Your task to perform on an android device: Show the shopping cart on walmart. Add "jbl flip 4" to the cart on walmart, then select checkout. Image 0: 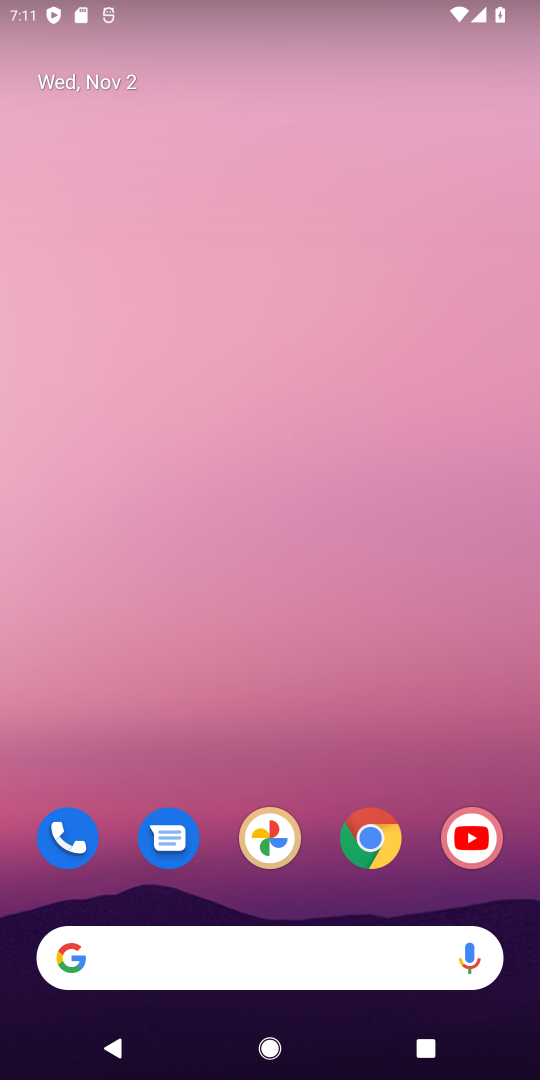
Step 0: click (371, 860)
Your task to perform on an android device: Show the shopping cart on walmart. Add "jbl flip 4" to the cart on walmart, then select checkout. Image 1: 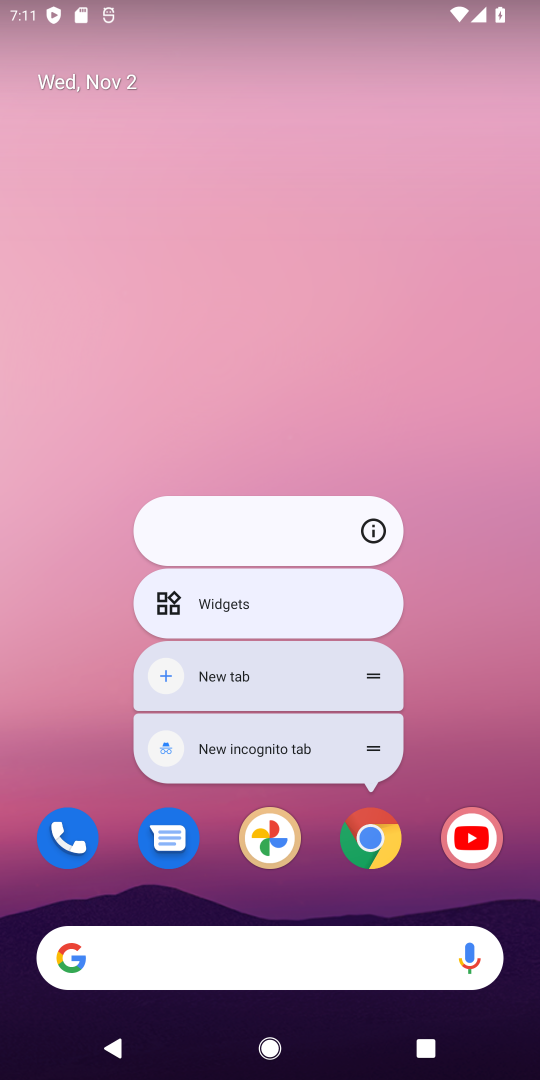
Step 1: click (380, 849)
Your task to perform on an android device: Show the shopping cart on walmart. Add "jbl flip 4" to the cart on walmart, then select checkout. Image 2: 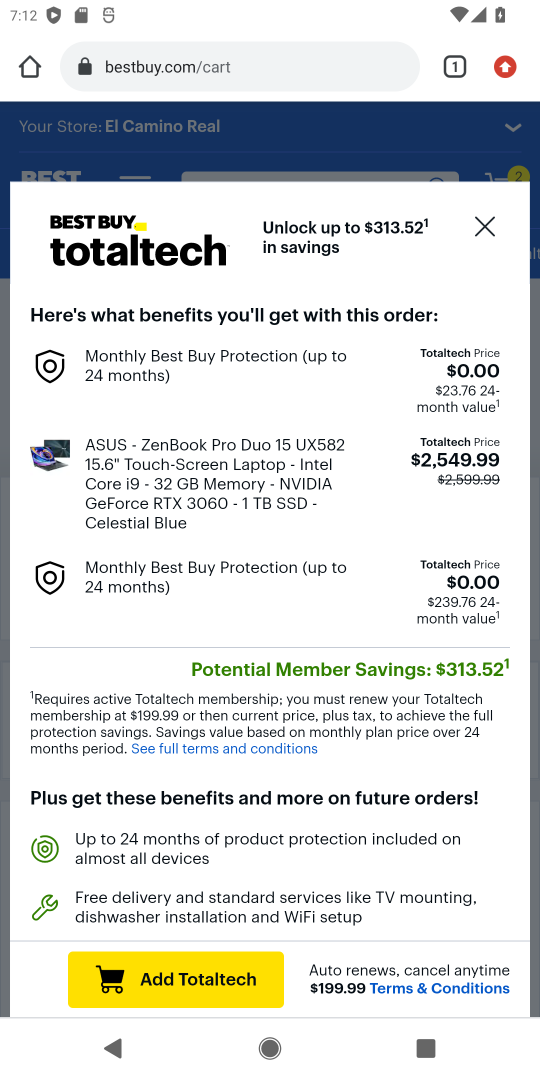
Step 2: click (268, 68)
Your task to perform on an android device: Show the shopping cart on walmart. Add "jbl flip 4" to the cart on walmart, then select checkout. Image 3: 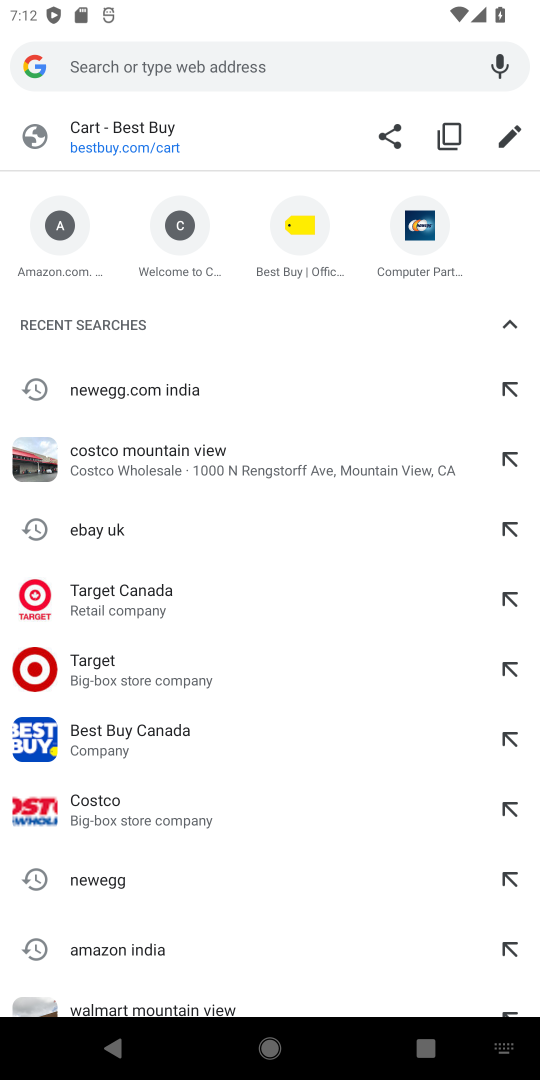
Step 3: type "walmart"
Your task to perform on an android device: Show the shopping cart on walmart. Add "jbl flip 4" to the cart on walmart, then select checkout. Image 4: 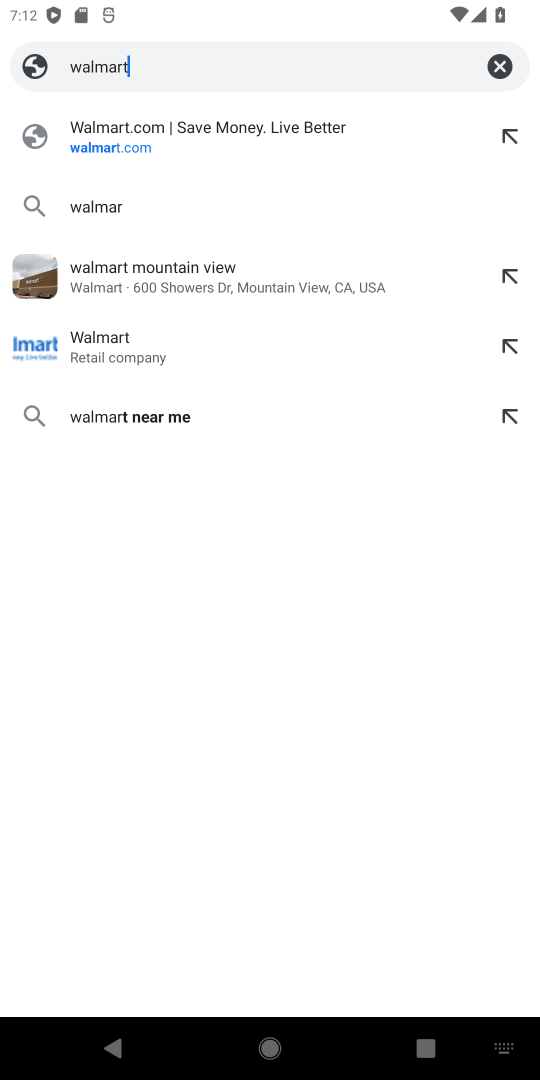
Step 4: type ""
Your task to perform on an android device: Show the shopping cart on walmart. Add "jbl flip 4" to the cart on walmart, then select checkout. Image 5: 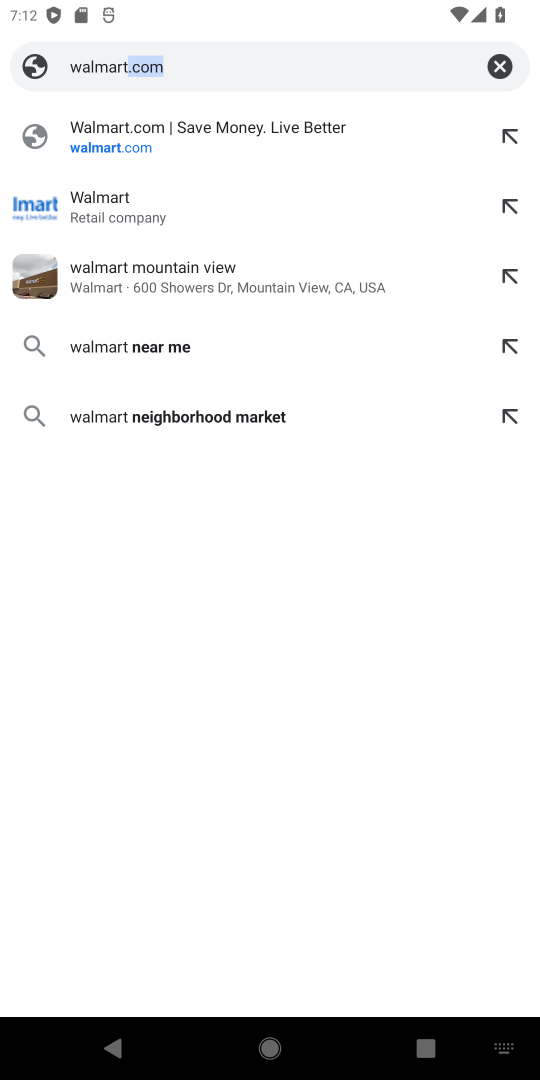
Step 5: press enter
Your task to perform on an android device: Show the shopping cart on walmart. Add "jbl flip 4" to the cart on walmart, then select checkout. Image 6: 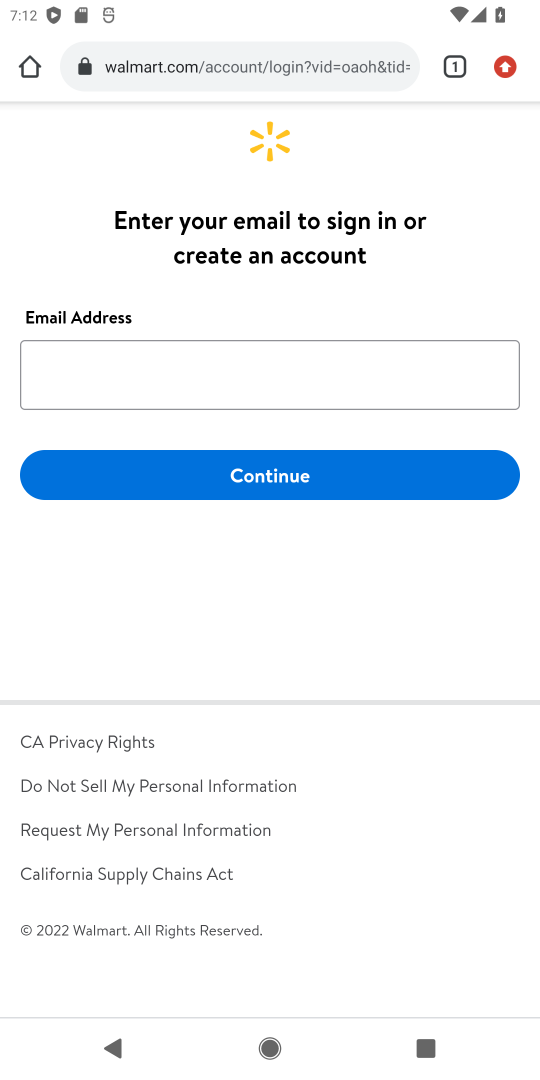
Step 6: click (302, 64)
Your task to perform on an android device: Show the shopping cart on walmart. Add "jbl flip 4" to the cart on walmart, then select checkout. Image 7: 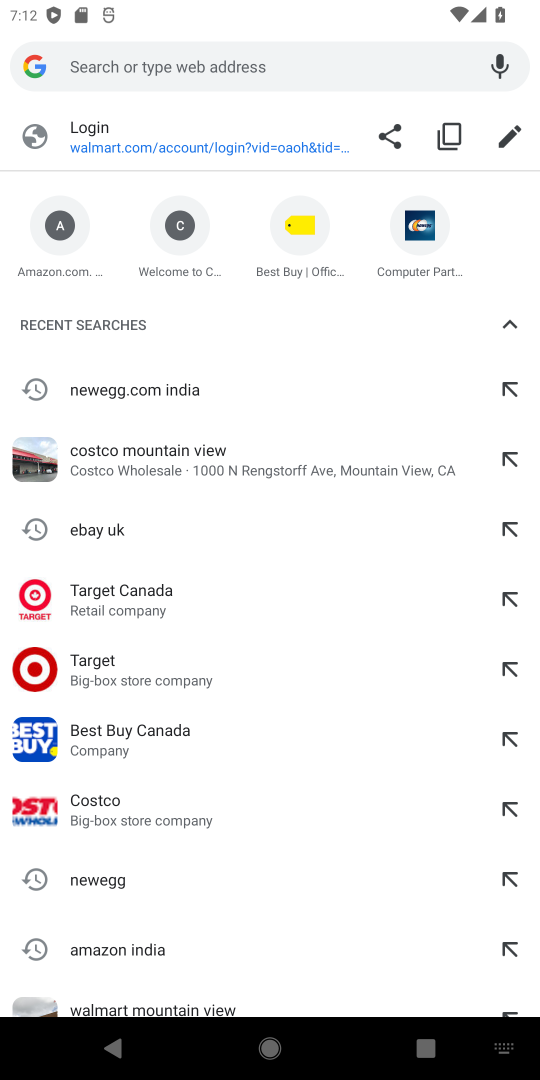
Step 7: type "walmart"
Your task to perform on an android device: Show the shopping cart on walmart. Add "jbl flip 4" to the cart on walmart, then select checkout. Image 8: 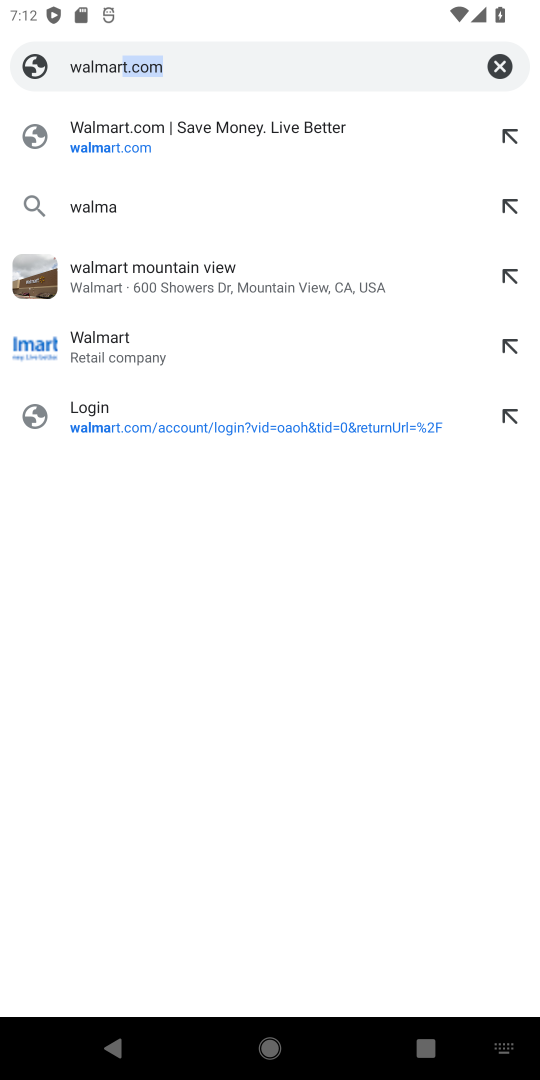
Step 8: type ""
Your task to perform on an android device: Show the shopping cart on walmart. Add "jbl flip 4" to the cart on walmart, then select checkout. Image 9: 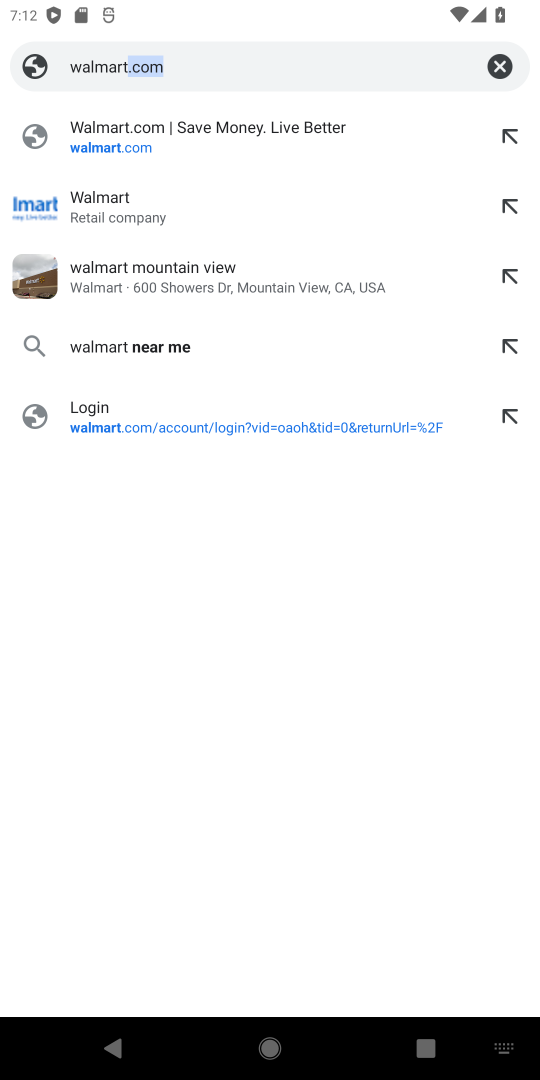
Step 9: press enter
Your task to perform on an android device: Show the shopping cart on walmart. Add "jbl flip 4" to the cart on walmart, then select checkout. Image 10: 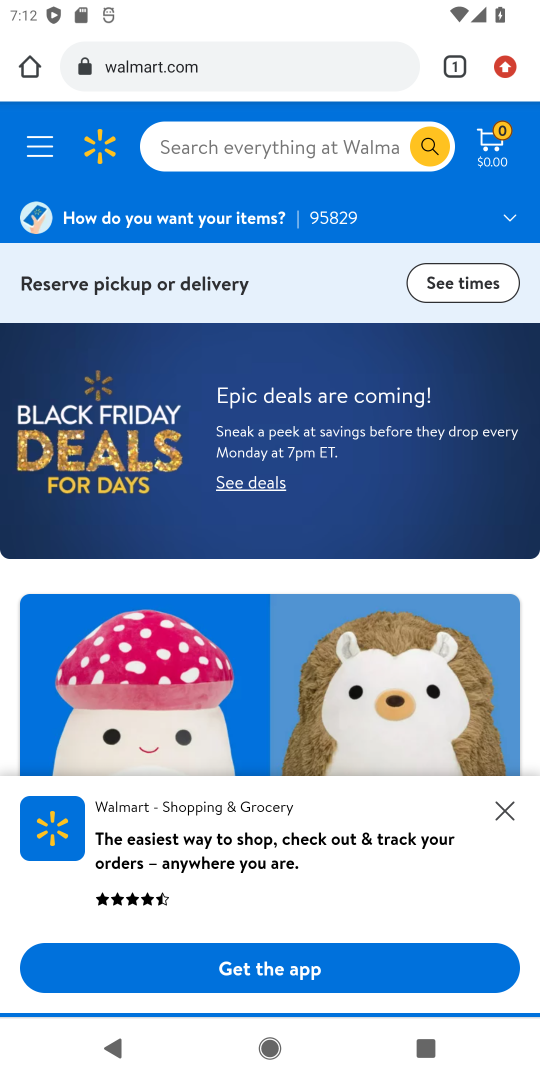
Step 10: click (281, 129)
Your task to perform on an android device: Show the shopping cart on walmart. Add "jbl flip 4" to the cart on walmart, then select checkout. Image 11: 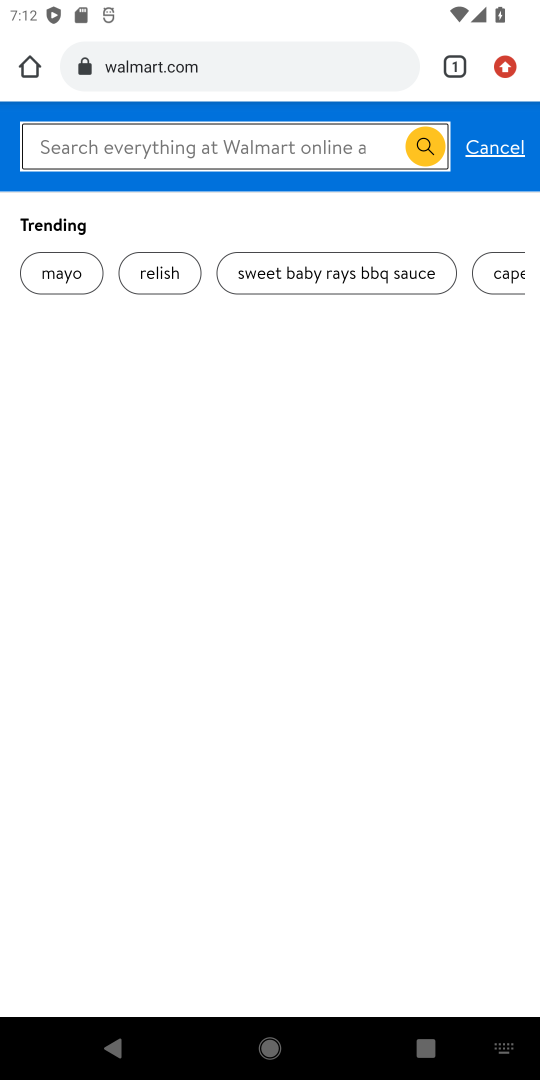
Step 11: click (492, 147)
Your task to perform on an android device: Show the shopping cart on walmart. Add "jbl flip 4" to the cart on walmart, then select checkout. Image 12: 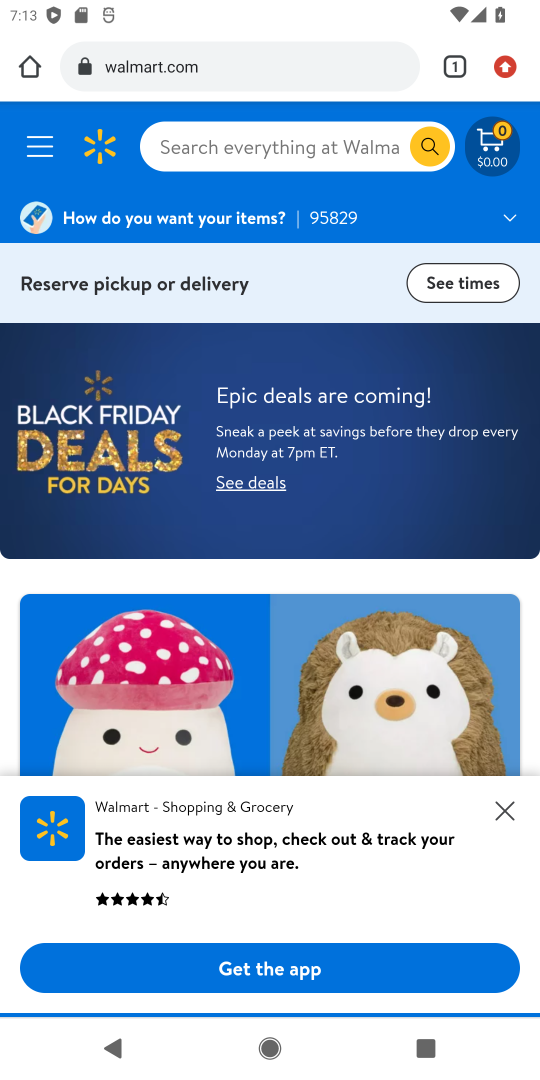
Step 12: click (488, 158)
Your task to perform on an android device: Show the shopping cart on walmart. Add "jbl flip 4" to the cart on walmart, then select checkout. Image 13: 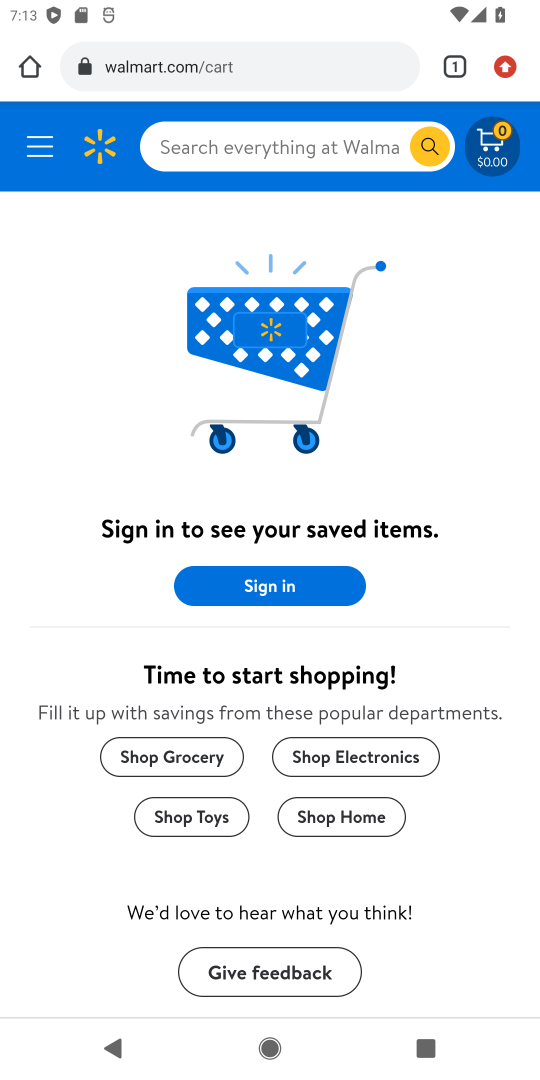
Step 13: click (292, 147)
Your task to perform on an android device: Show the shopping cart on walmart. Add "jbl flip 4" to the cart on walmart, then select checkout. Image 14: 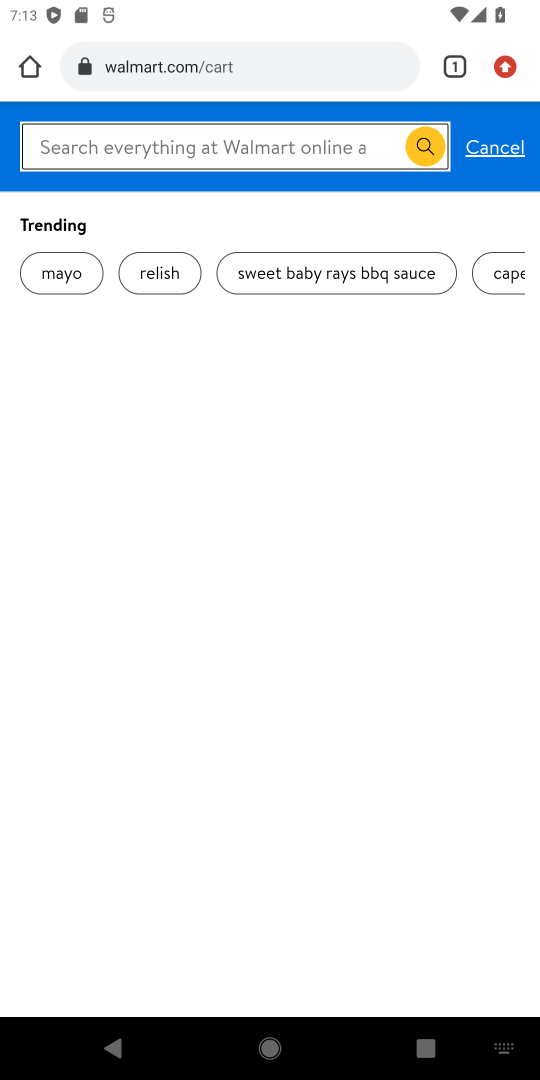
Step 14: type "jbl flip 4"
Your task to perform on an android device: Show the shopping cart on walmart. Add "jbl flip 4" to the cart on walmart, then select checkout. Image 15: 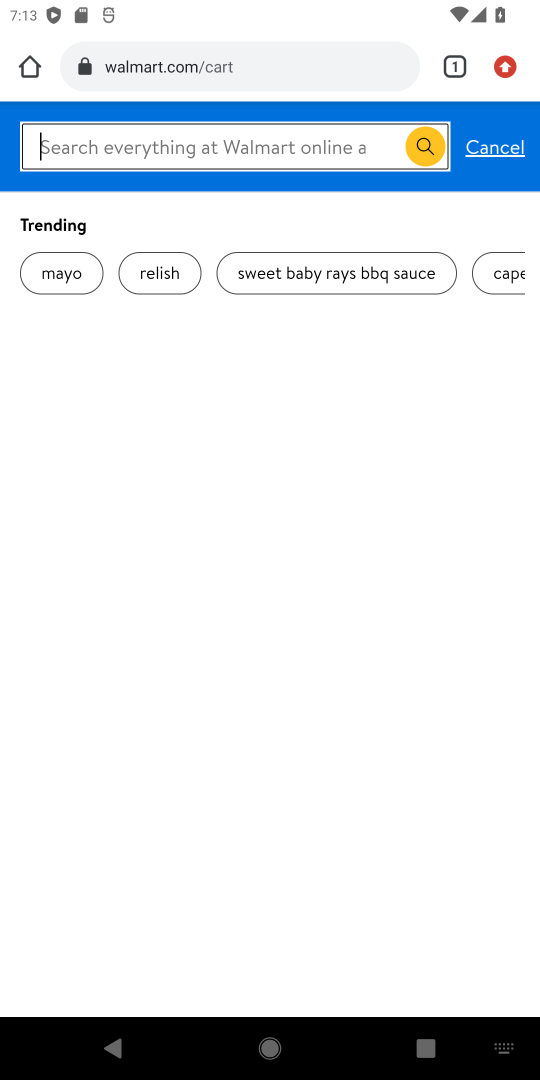
Step 15: type ""
Your task to perform on an android device: Show the shopping cart on walmart. Add "jbl flip 4" to the cart on walmart, then select checkout. Image 16: 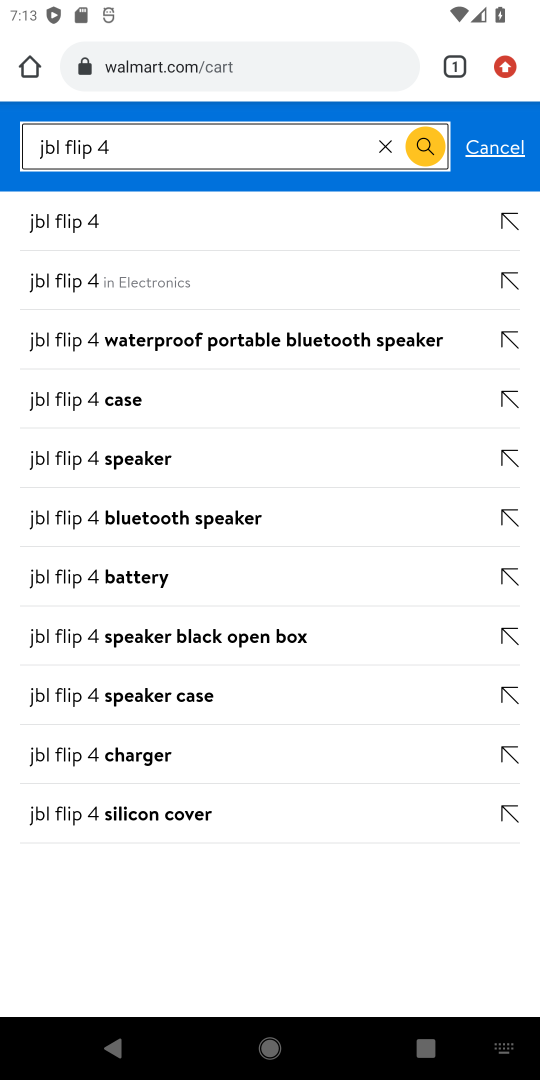
Step 16: press enter
Your task to perform on an android device: Show the shopping cart on walmart. Add "jbl flip 4" to the cart on walmart, then select checkout. Image 17: 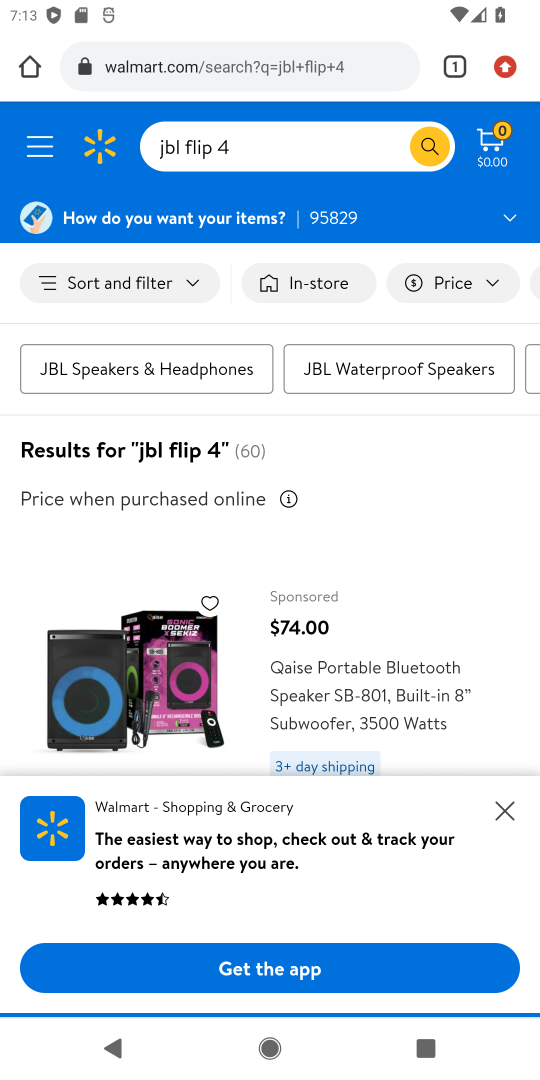
Step 17: click (506, 818)
Your task to perform on an android device: Show the shopping cart on walmart. Add "jbl flip 4" to the cart on walmart, then select checkout. Image 18: 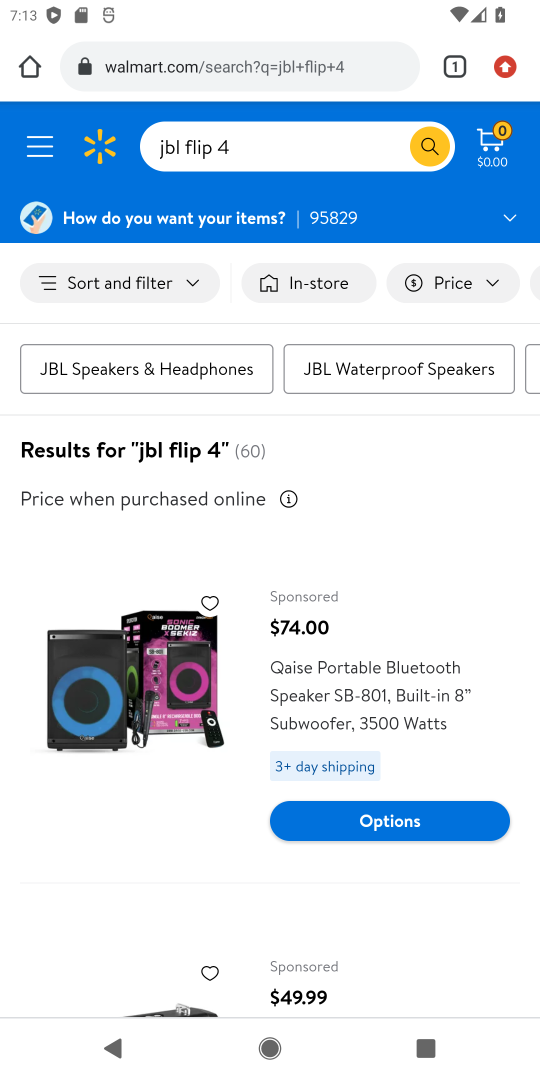
Step 18: task complete